Your task to perform on an android device: snooze an email in the gmail app Image 0: 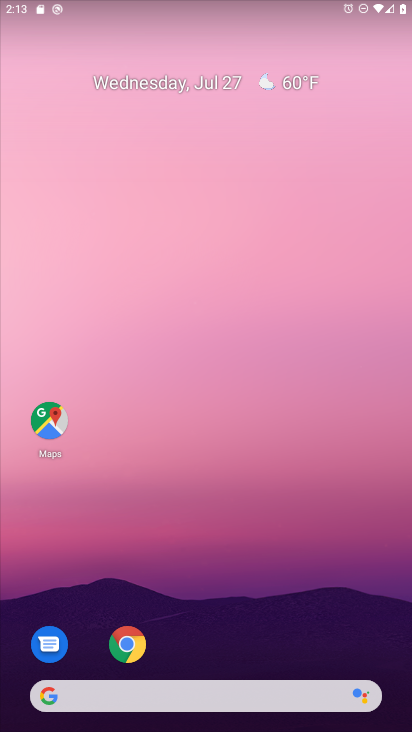
Step 0: drag from (227, 639) to (282, 304)
Your task to perform on an android device: snooze an email in the gmail app Image 1: 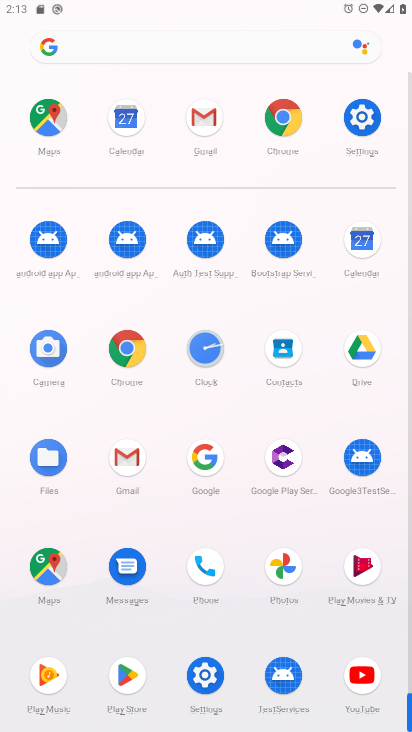
Step 1: click (138, 470)
Your task to perform on an android device: snooze an email in the gmail app Image 2: 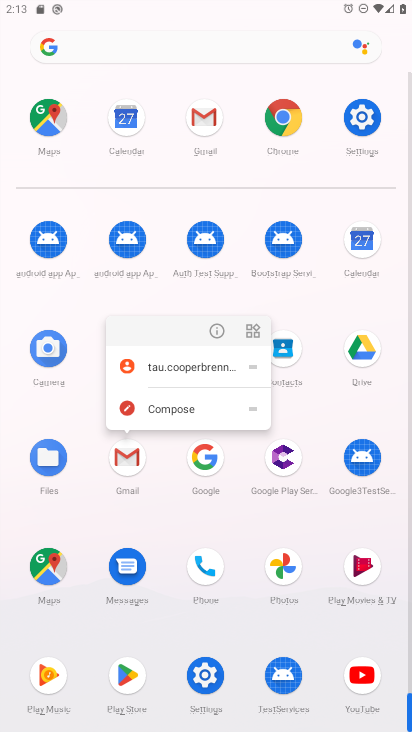
Step 2: click (201, 327)
Your task to perform on an android device: snooze an email in the gmail app Image 3: 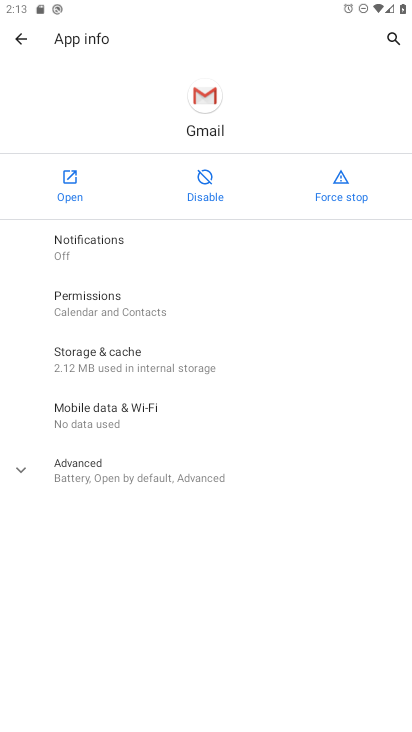
Step 3: click (68, 175)
Your task to perform on an android device: snooze an email in the gmail app Image 4: 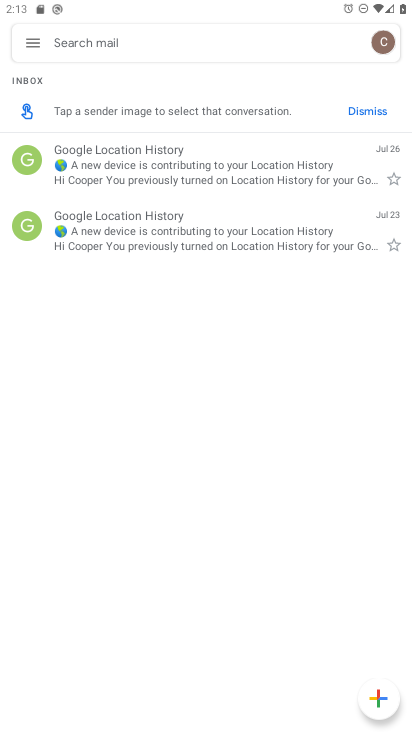
Step 4: click (35, 39)
Your task to perform on an android device: snooze an email in the gmail app Image 5: 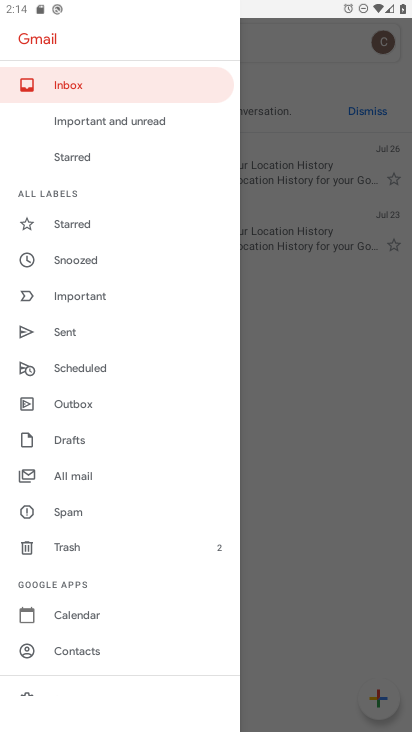
Step 5: click (104, 84)
Your task to perform on an android device: snooze an email in the gmail app Image 6: 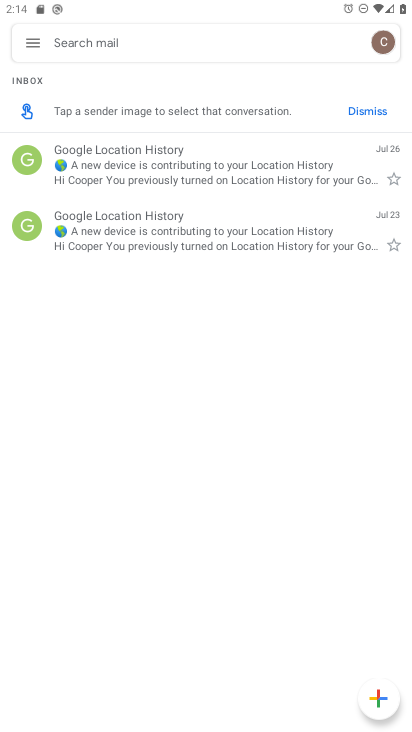
Step 6: click (140, 154)
Your task to perform on an android device: snooze an email in the gmail app Image 7: 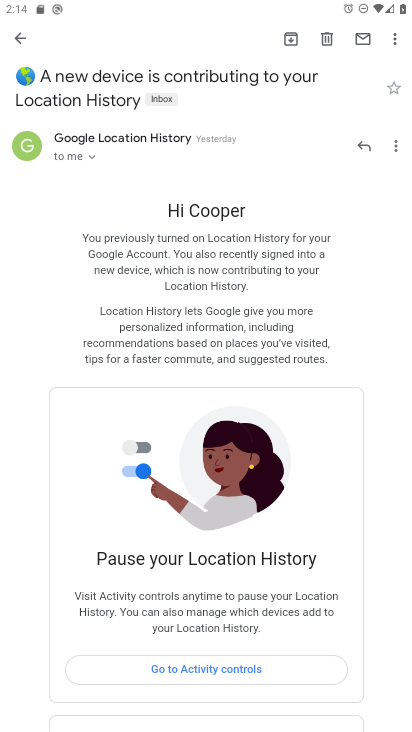
Step 7: click (397, 37)
Your task to perform on an android device: snooze an email in the gmail app Image 8: 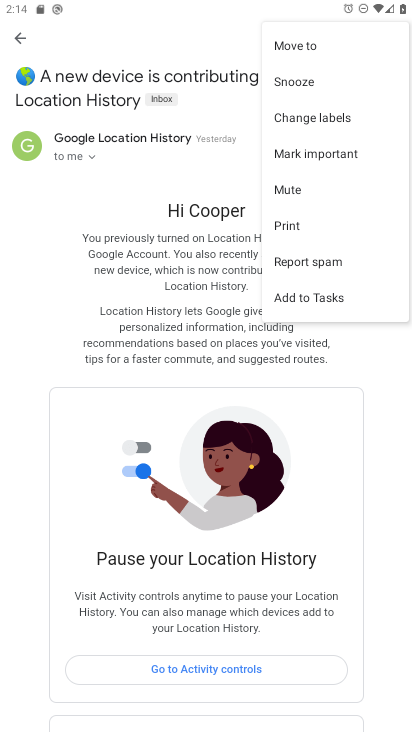
Step 8: click (298, 83)
Your task to perform on an android device: snooze an email in the gmail app Image 9: 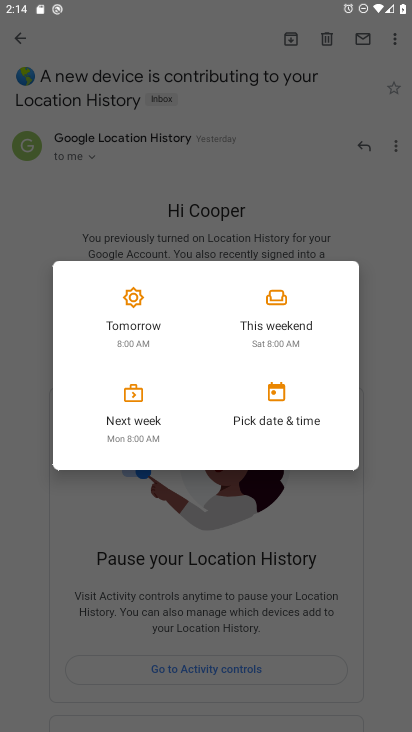
Step 9: click (137, 307)
Your task to perform on an android device: snooze an email in the gmail app Image 10: 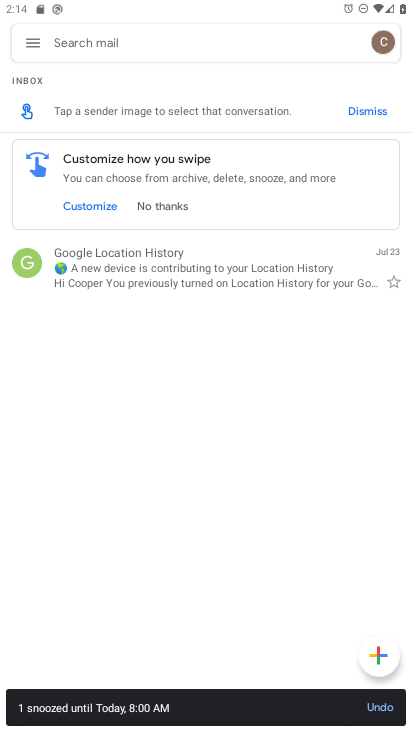
Step 10: task complete